Your task to perform on an android device: show emergency info Image 0: 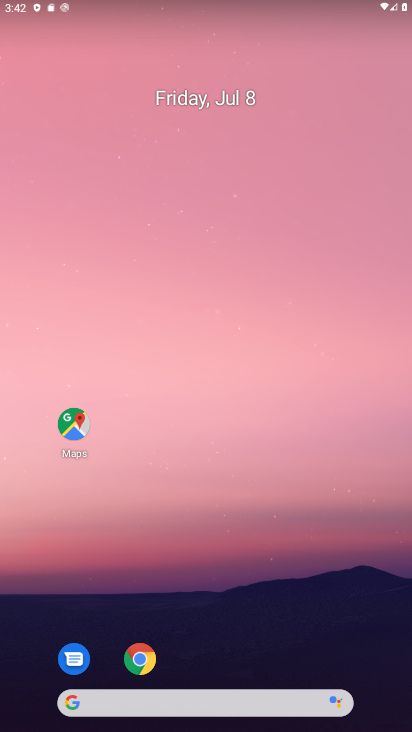
Step 0: drag from (137, 318) to (300, 11)
Your task to perform on an android device: show emergency info Image 1: 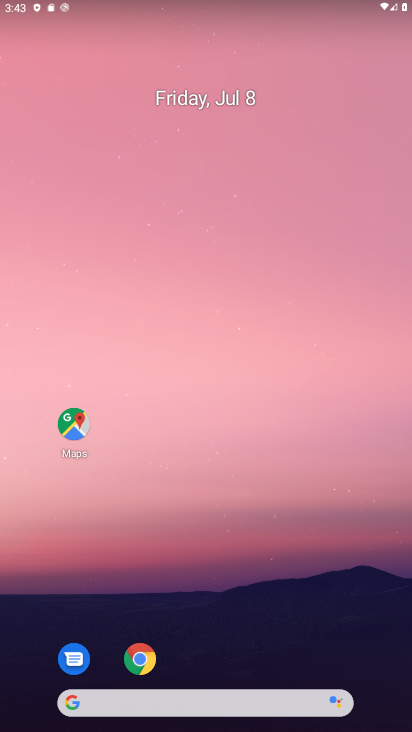
Step 1: drag from (32, 550) to (235, 169)
Your task to perform on an android device: show emergency info Image 2: 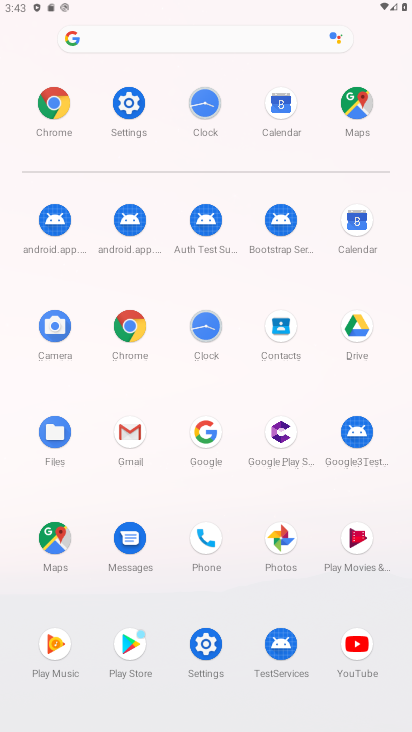
Step 2: click (113, 109)
Your task to perform on an android device: show emergency info Image 3: 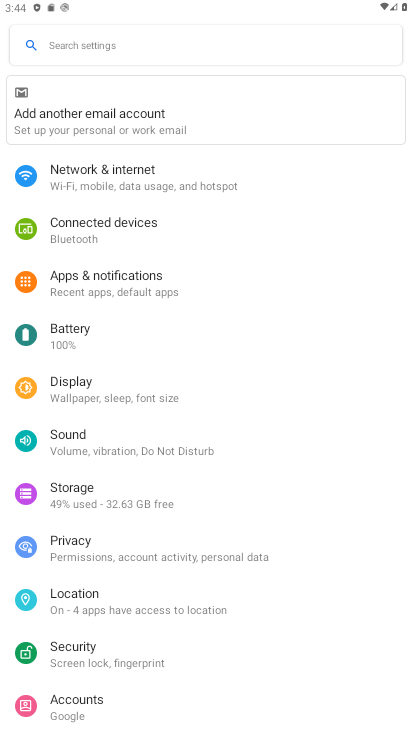
Step 3: drag from (97, 639) to (314, 91)
Your task to perform on an android device: show emergency info Image 4: 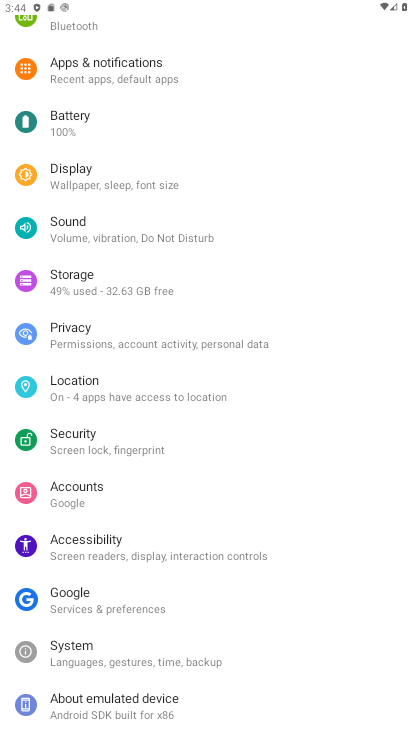
Step 4: click (138, 699)
Your task to perform on an android device: show emergency info Image 5: 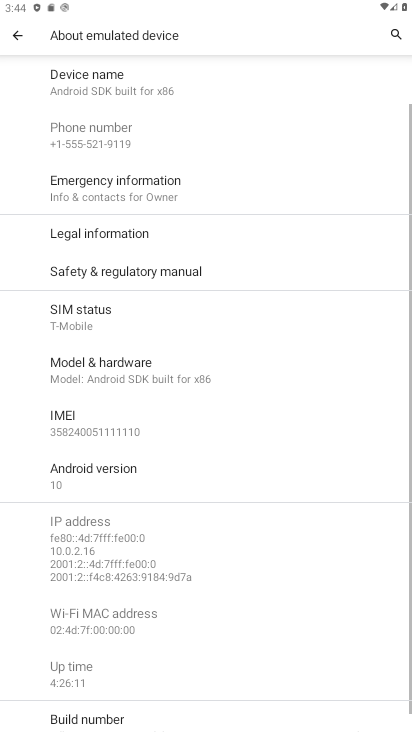
Step 5: click (250, 184)
Your task to perform on an android device: show emergency info Image 6: 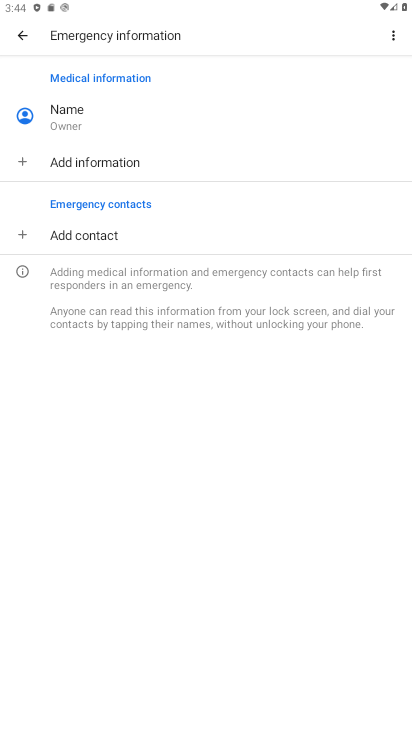
Step 6: task complete